Your task to perform on an android device: What's on my calendar today? Image 0: 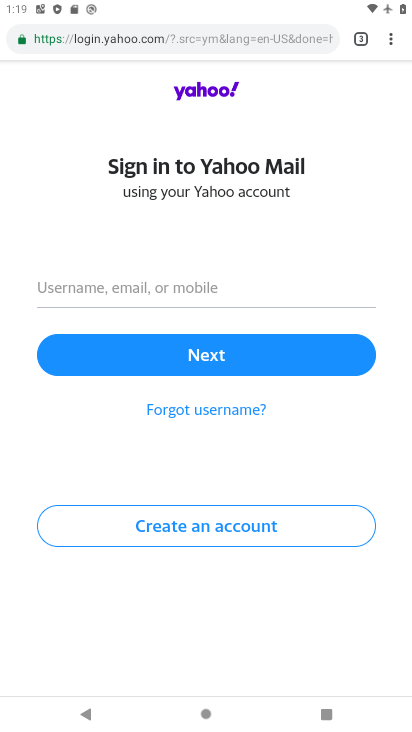
Step 0: press home button
Your task to perform on an android device: What's on my calendar today? Image 1: 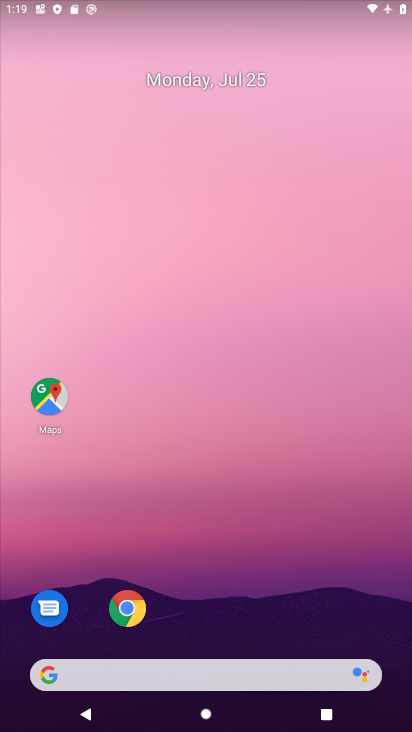
Step 1: drag from (178, 628) to (206, 181)
Your task to perform on an android device: What's on my calendar today? Image 2: 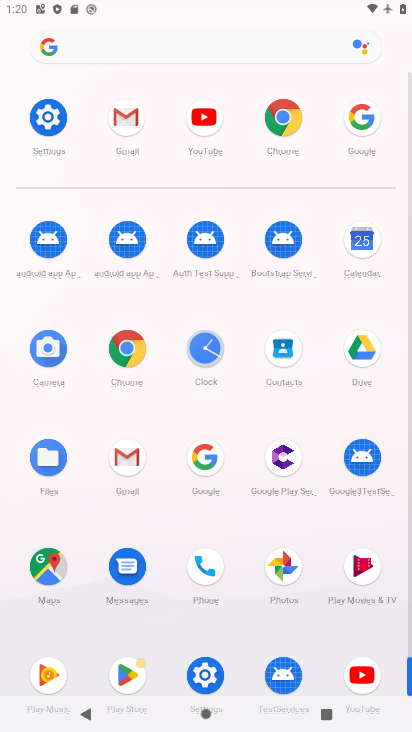
Step 2: click (364, 247)
Your task to perform on an android device: What's on my calendar today? Image 3: 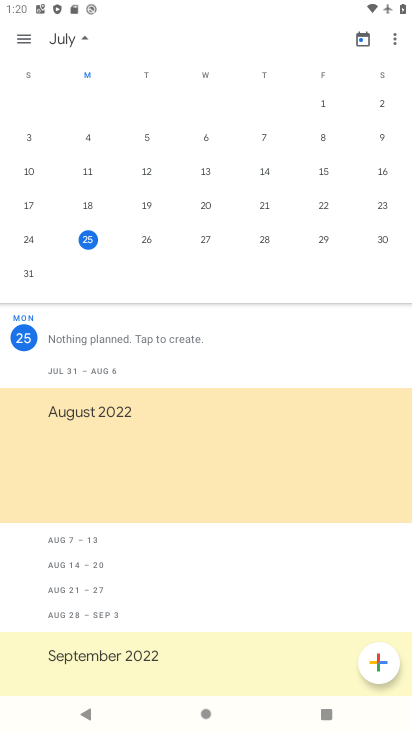
Step 3: task complete